Your task to perform on an android device: Toggle the flashlight Image 0: 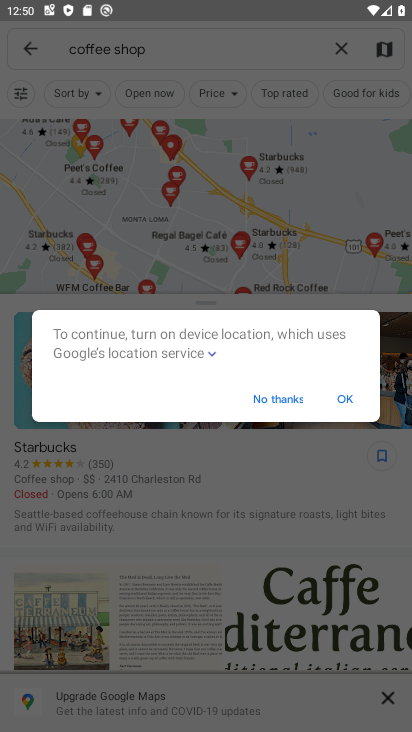
Step 0: press home button
Your task to perform on an android device: Toggle the flashlight Image 1: 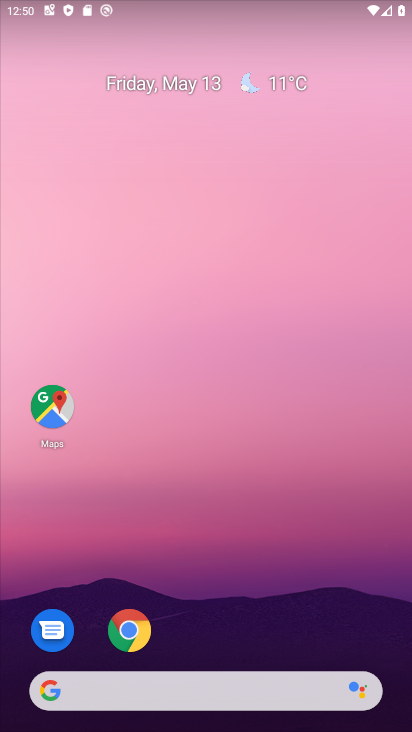
Step 1: task complete